Your task to perform on an android device: open device folders in google photos Image 0: 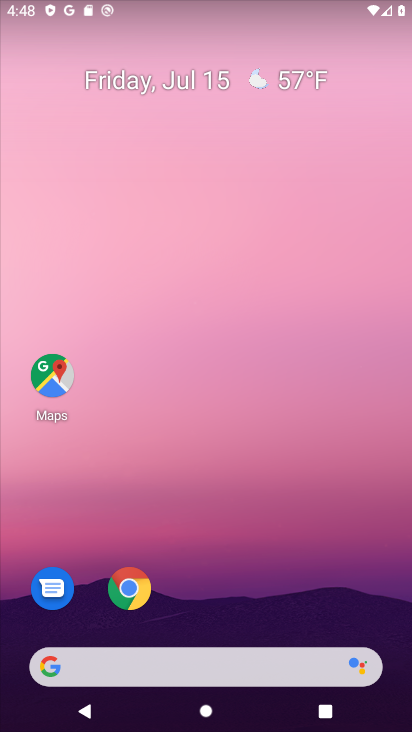
Step 0: drag from (282, 606) to (322, 110)
Your task to perform on an android device: open device folders in google photos Image 1: 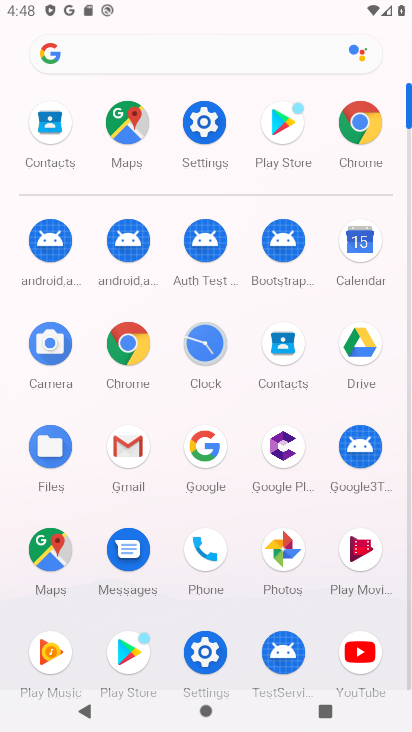
Step 1: click (289, 543)
Your task to perform on an android device: open device folders in google photos Image 2: 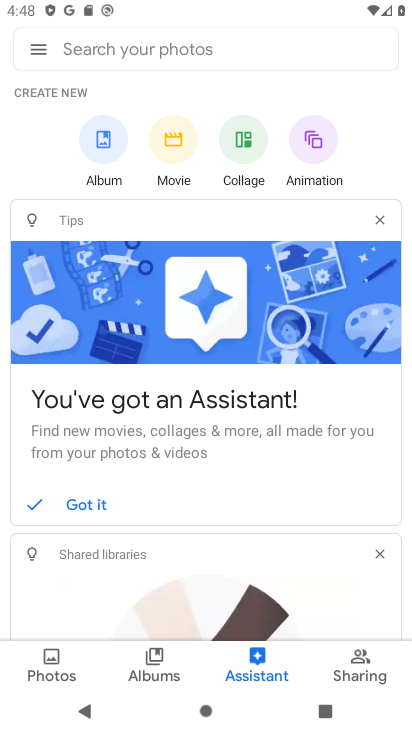
Step 2: click (33, 53)
Your task to perform on an android device: open device folders in google photos Image 3: 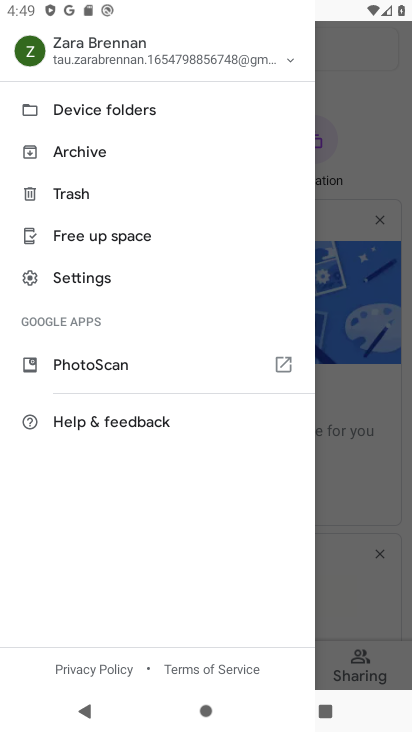
Step 3: click (134, 110)
Your task to perform on an android device: open device folders in google photos Image 4: 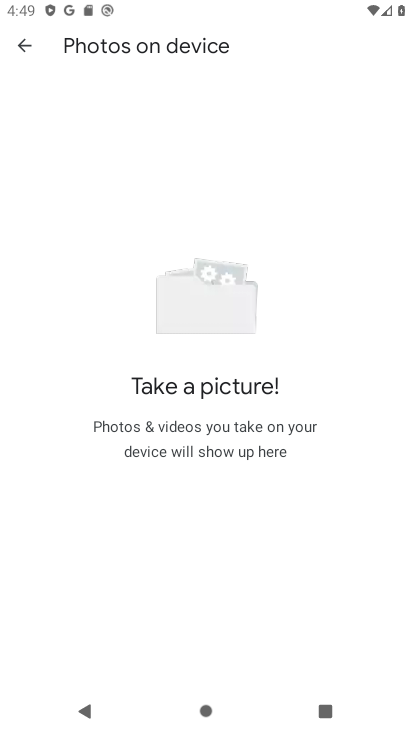
Step 4: task complete